Your task to perform on an android device: Open calendar and show me the fourth week of next month Image 0: 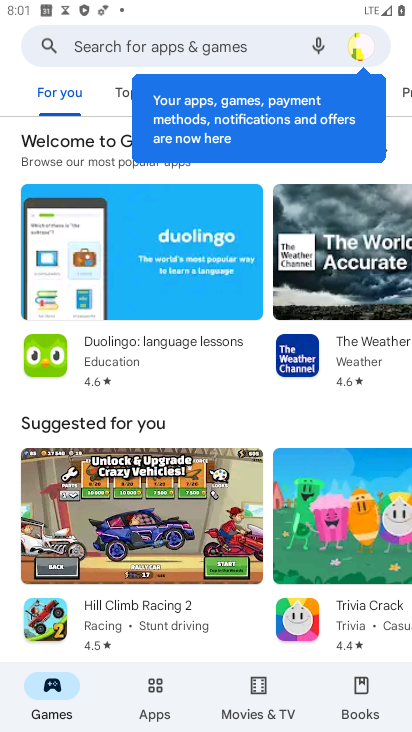
Step 0: press home button
Your task to perform on an android device: Open calendar and show me the fourth week of next month Image 1: 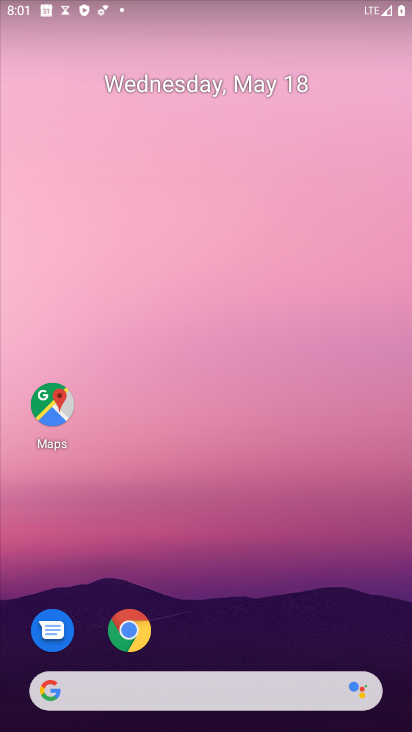
Step 1: drag from (301, 560) to (346, 113)
Your task to perform on an android device: Open calendar and show me the fourth week of next month Image 2: 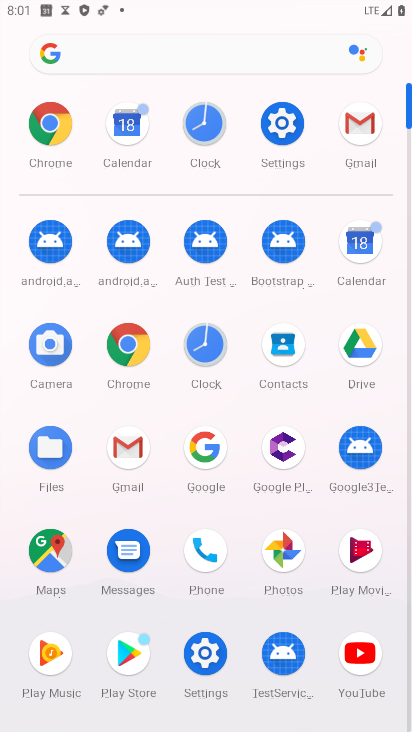
Step 2: click (124, 133)
Your task to perform on an android device: Open calendar and show me the fourth week of next month Image 3: 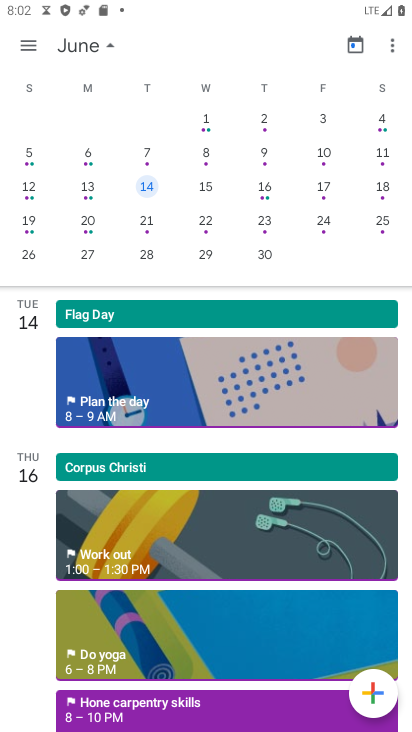
Step 3: drag from (346, 182) to (7, 69)
Your task to perform on an android device: Open calendar and show me the fourth week of next month Image 4: 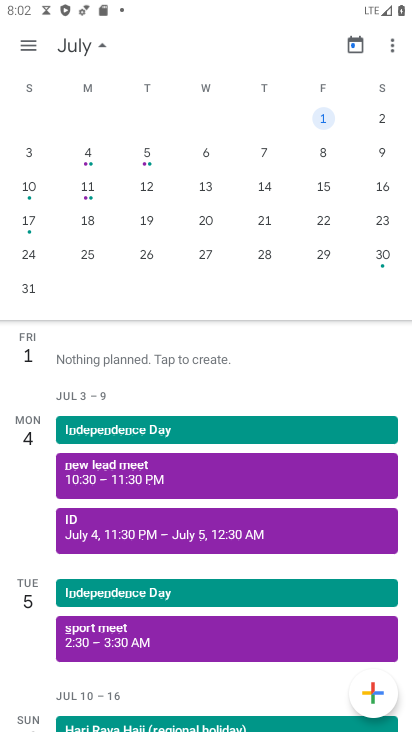
Step 4: click (255, 260)
Your task to perform on an android device: Open calendar and show me the fourth week of next month Image 5: 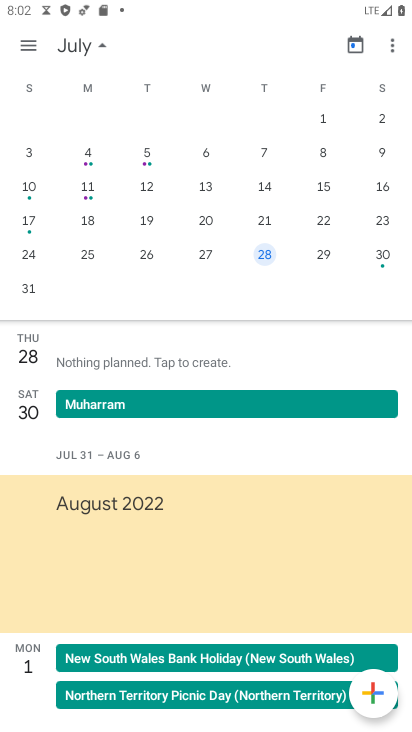
Step 5: task complete